Your task to perform on an android device: choose inbox layout in the gmail app Image 0: 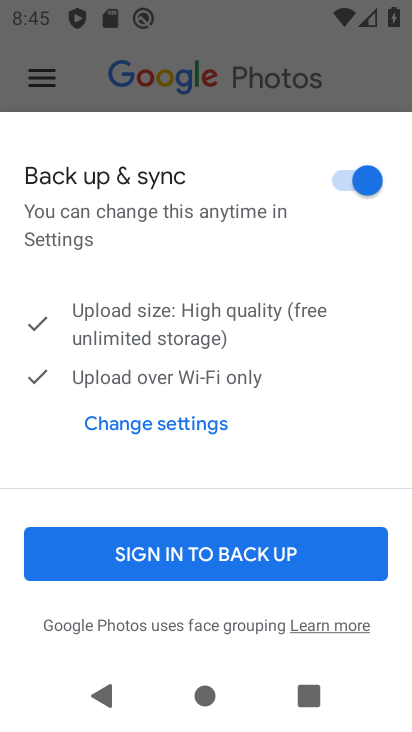
Step 0: press back button
Your task to perform on an android device: choose inbox layout in the gmail app Image 1: 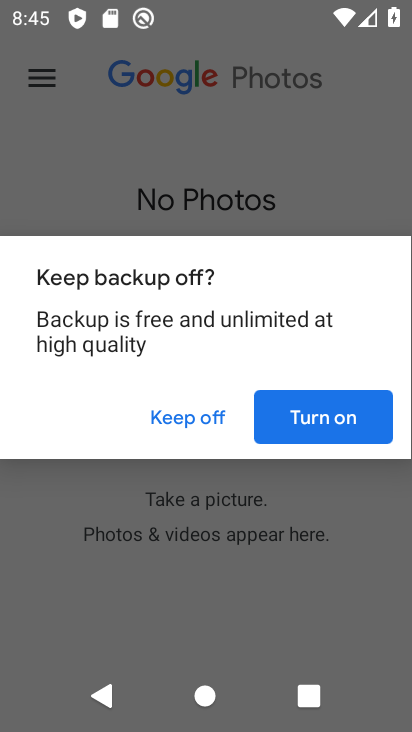
Step 1: press back button
Your task to perform on an android device: choose inbox layout in the gmail app Image 2: 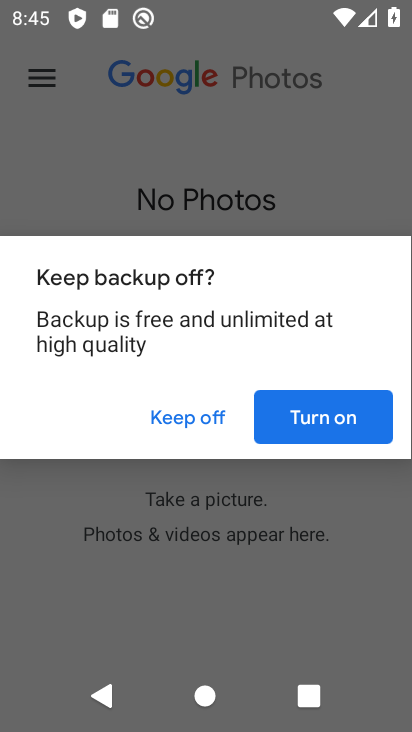
Step 2: press home button
Your task to perform on an android device: choose inbox layout in the gmail app Image 3: 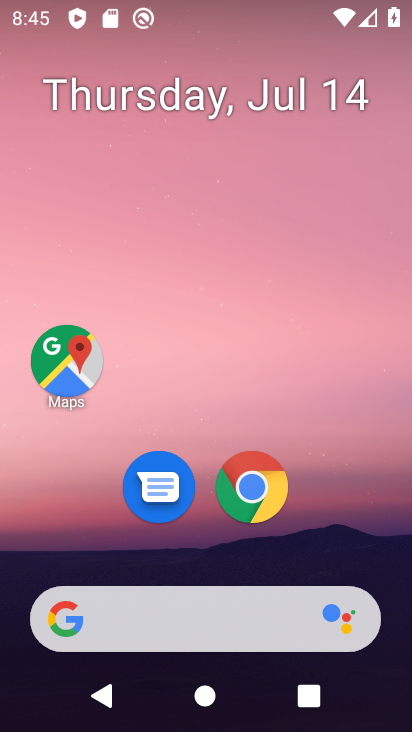
Step 3: drag from (169, 554) to (315, 3)
Your task to perform on an android device: choose inbox layout in the gmail app Image 4: 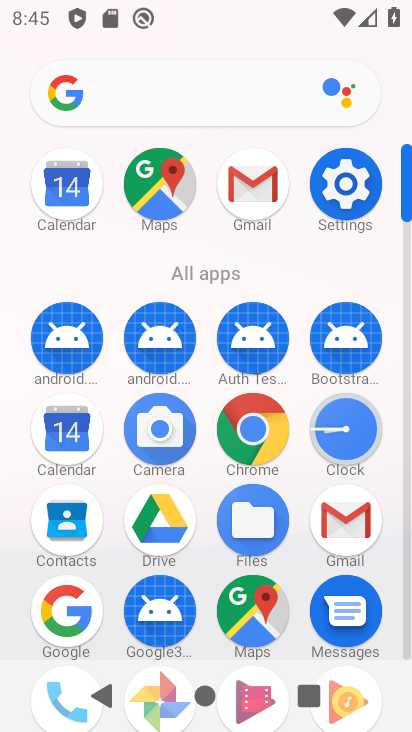
Step 4: click (242, 182)
Your task to perform on an android device: choose inbox layout in the gmail app Image 5: 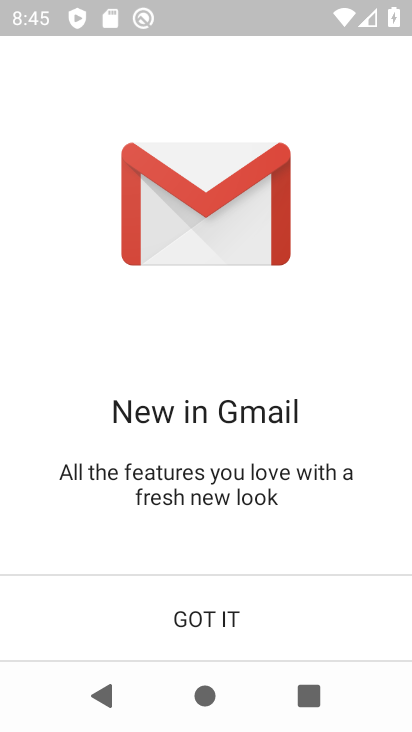
Step 5: click (181, 613)
Your task to perform on an android device: choose inbox layout in the gmail app Image 6: 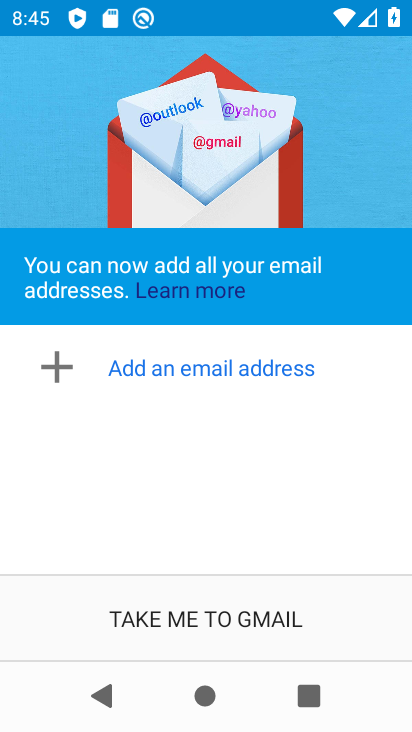
Step 6: task complete